Your task to perform on an android device: Open Youtube and go to "Your channel" Image 0: 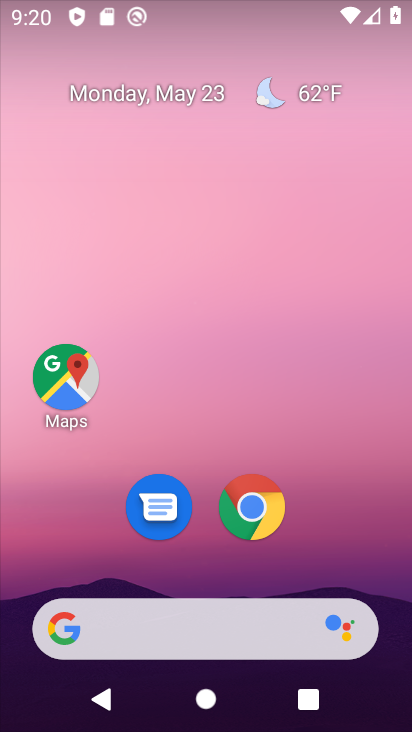
Step 0: drag from (345, 554) to (283, 21)
Your task to perform on an android device: Open Youtube and go to "Your channel" Image 1: 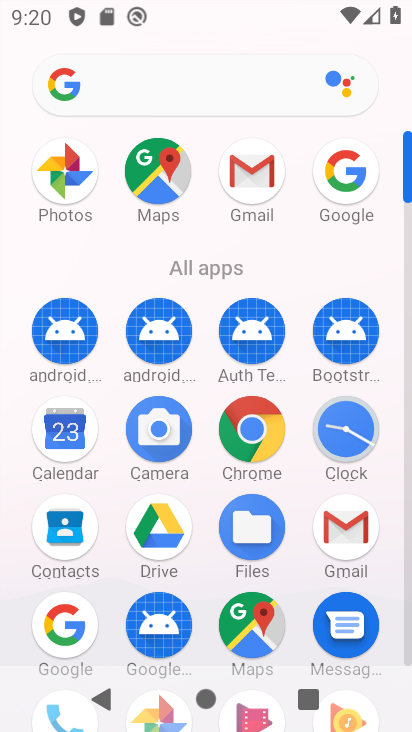
Step 1: drag from (201, 486) to (204, 300)
Your task to perform on an android device: Open Youtube and go to "Your channel" Image 2: 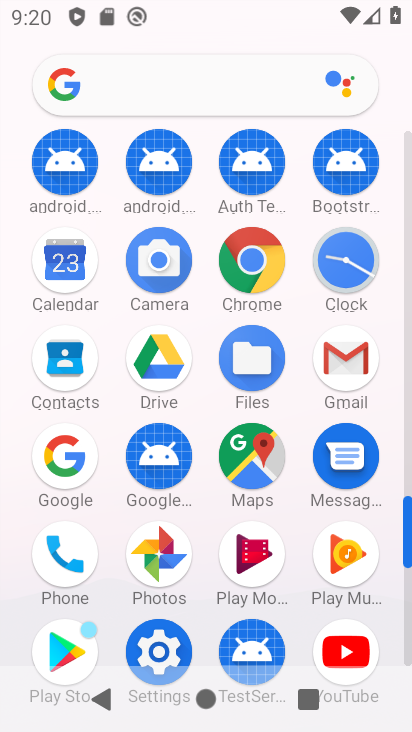
Step 2: drag from (294, 609) to (288, 489)
Your task to perform on an android device: Open Youtube and go to "Your channel" Image 3: 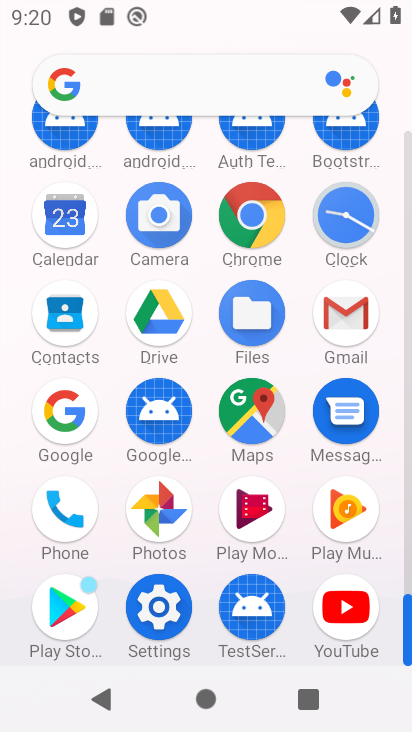
Step 3: click (348, 604)
Your task to perform on an android device: Open Youtube and go to "Your channel" Image 4: 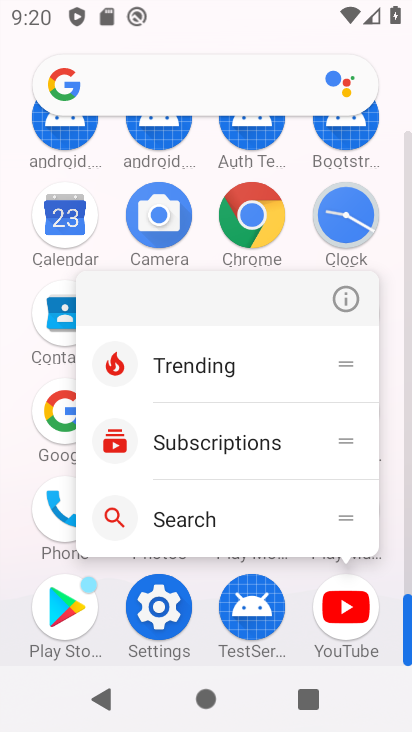
Step 4: click (348, 604)
Your task to perform on an android device: Open Youtube and go to "Your channel" Image 5: 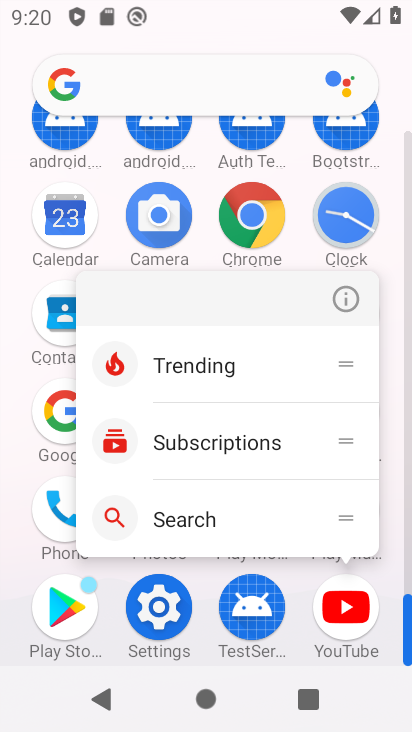
Step 5: click (348, 605)
Your task to perform on an android device: Open Youtube and go to "Your channel" Image 6: 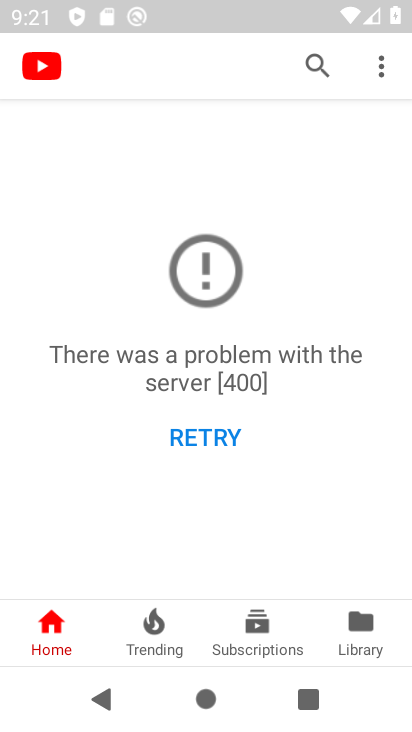
Step 6: click (213, 432)
Your task to perform on an android device: Open Youtube and go to "Your channel" Image 7: 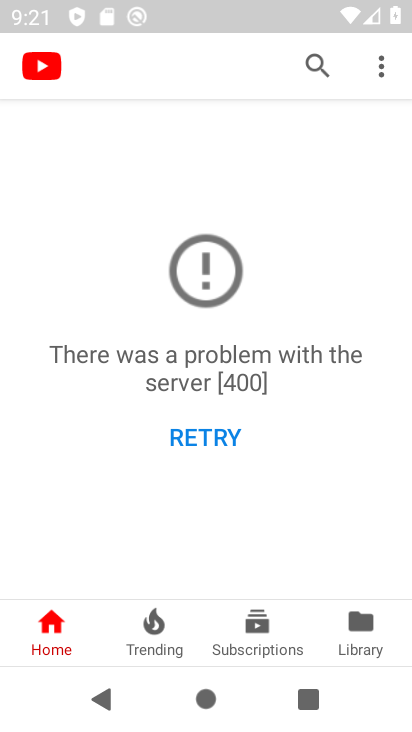
Step 7: click (213, 432)
Your task to perform on an android device: Open Youtube and go to "Your channel" Image 8: 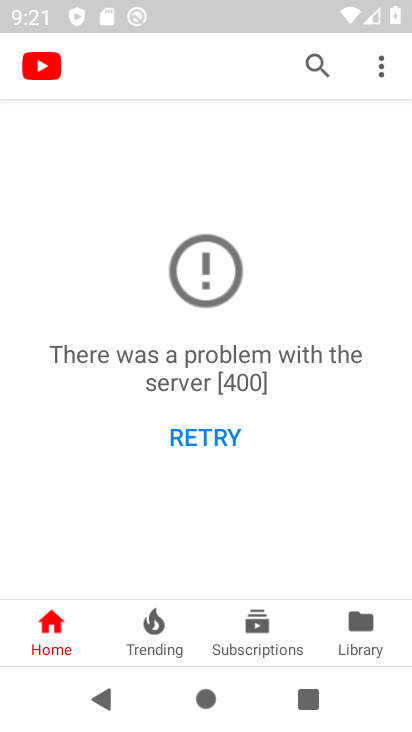
Step 8: click (194, 435)
Your task to perform on an android device: Open Youtube and go to "Your channel" Image 9: 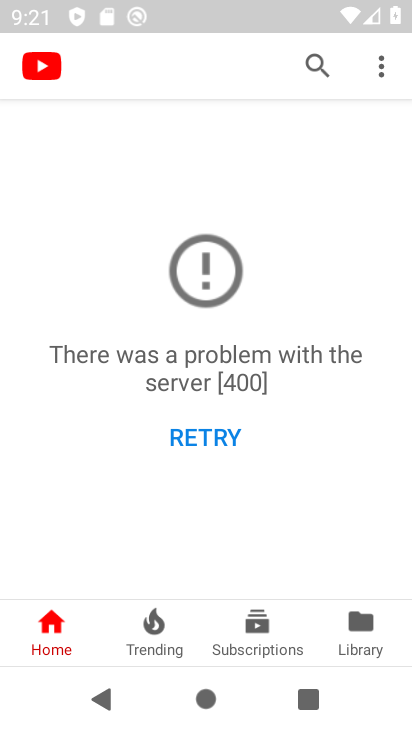
Step 9: click (194, 435)
Your task to perform on an android device: Open Youtube and go to "Your channel" Image 10: 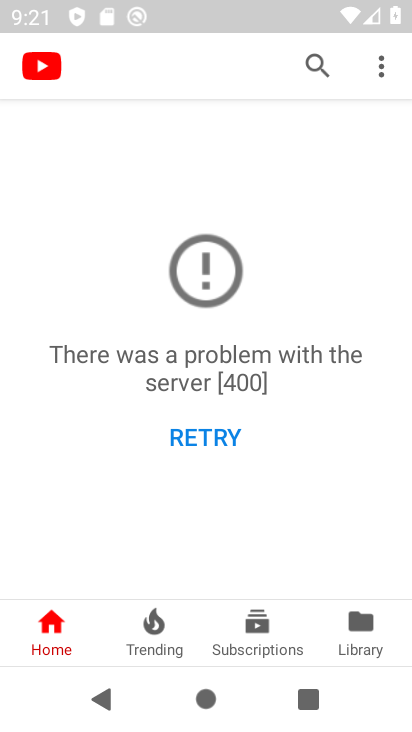
Step 10: click (194, 435)
Your task to perform on an android device: Open Youtube and go to "Your channel" Image 11: 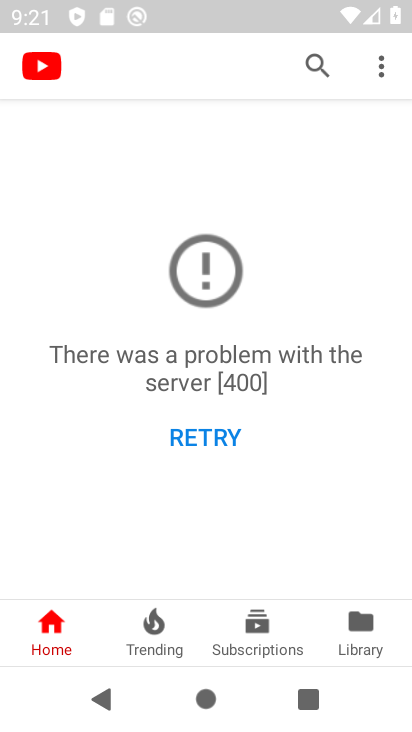
Step 11: click (194, 435)
Your task to perform on an android device: Open Youtube and go to "Your channel" Image 12: 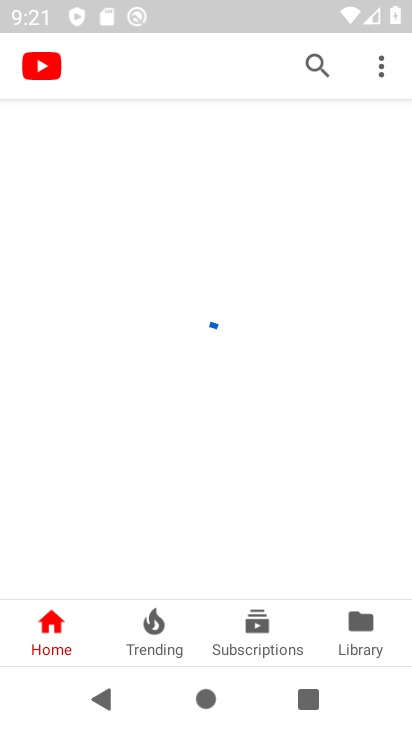
Step 12: click (194, 435)
Your task to perform on an android device: Open Youtube and go to "Your channel" Image 13: 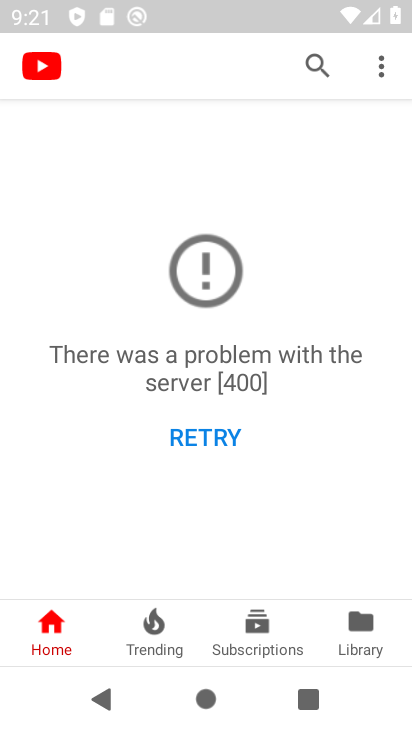
Step 13: click (194, 435)
Your task to perform on an android device: Open Youtube and go to "Your channel" Image 14: 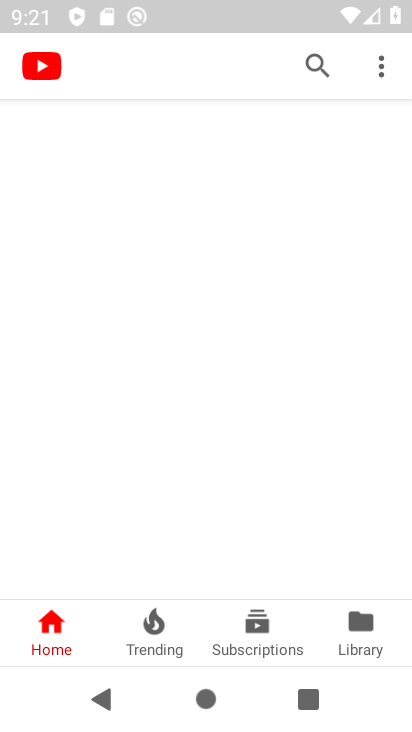
Step 14: click (194, 435)
Your task to perform on an android device: Open Youtube and go to "Your channel" Image 15: 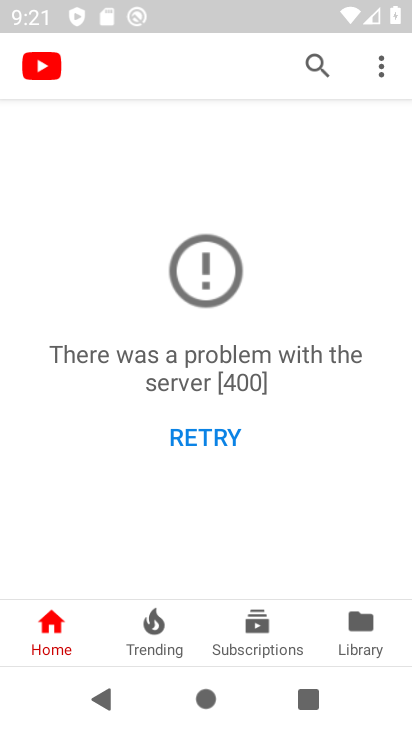
Step 15: click (194, 435)
Your task to perform on an android device: Open Youtube and go to "Your channel" Image 16: 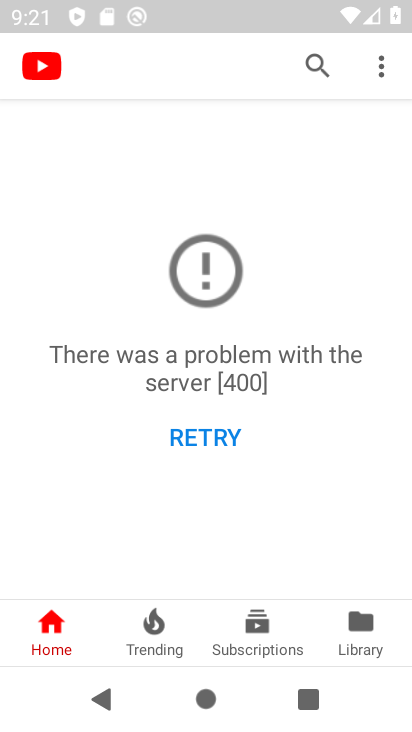
Step 16: task complete